Your task to perform on an android device: toggle translation in the chrome app Image 0: 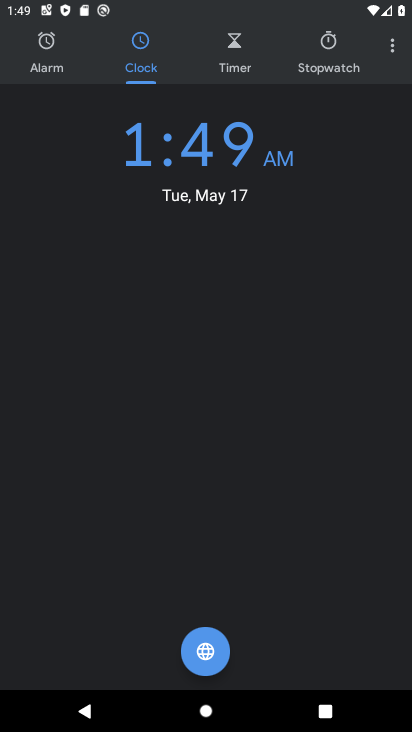
Step 0: press home button
Your task to perform on an android device: toggle translation in the chrome app Image 1: 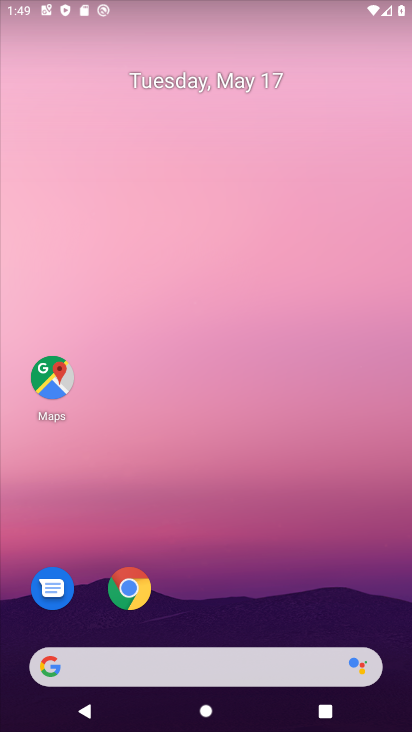
Step 1: click (237, 559)
Your task to perform on an android device: toggle translation in the chrome app Image 2: 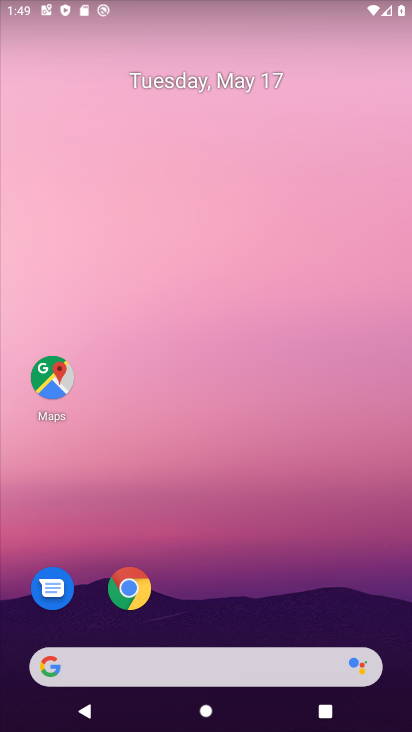
Step 2: click (137, 584)
Your task to perform on an android device: toggle translation in the chrome app Image 3: 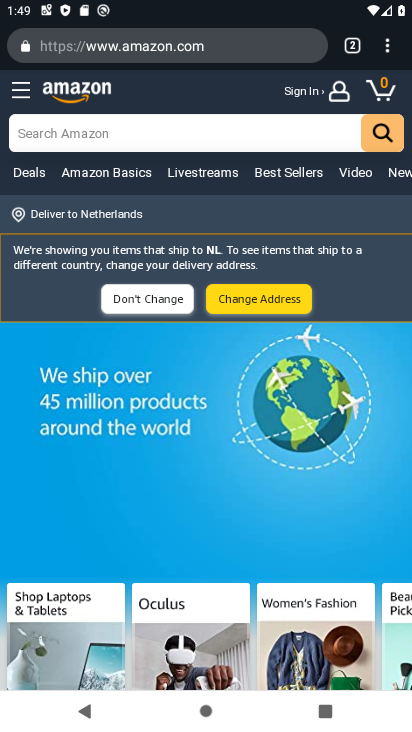
Step 3: click (382, 51)
Your task to perform on an android device: toggle translation in the chrome app Image 4: 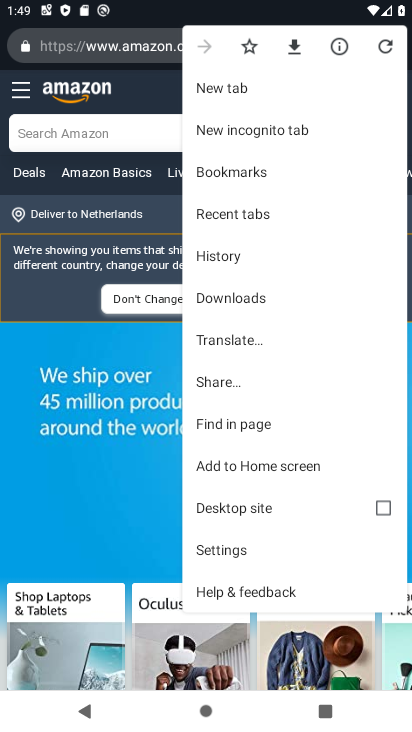
Step 4: click (229, 551)
Your task to perform on an android device: toggle translation in the chrome app Image 5: 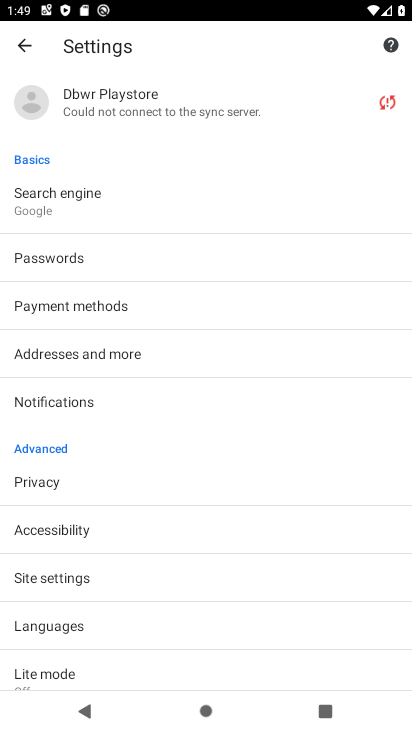
Step 5: click (76, 630)
Your task to perform on an android device: toggle translation in the chrome app Image 6: 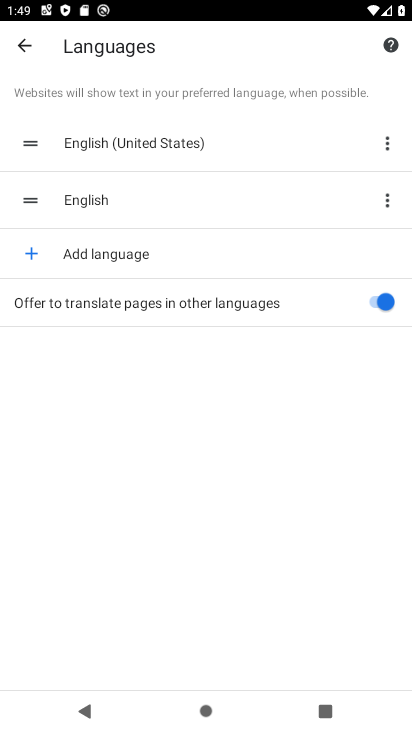
Step 6: click (385, 301)
Your task to perform on an android device: toggle translation in the chrome app Image 7: 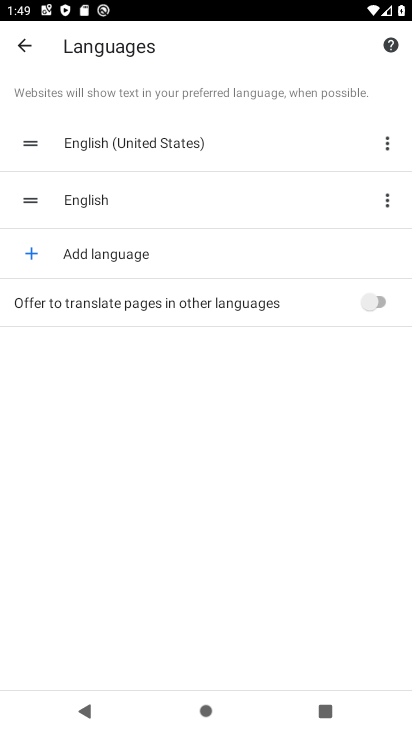
Step 7: task complete